Your task to perform on an android device: turn on wifi Image 0: 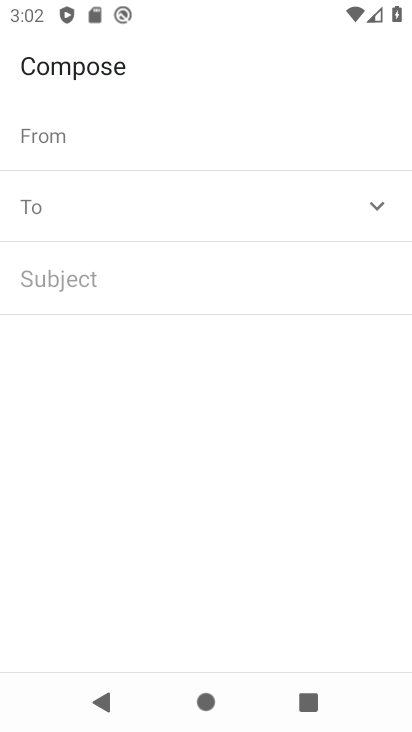
Step 0: drag from (211, 448) to (216, 122)
Your task to perform on an android device: turn on wifi Image 1: 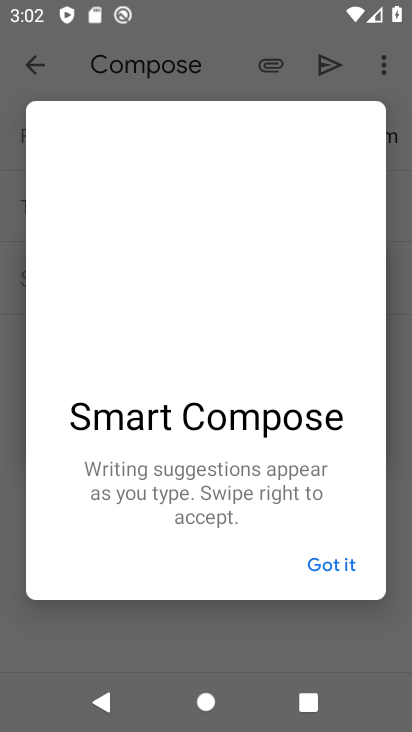
Step 1: press home button
Your task to perform on an android device: turn on wifi Image 2: 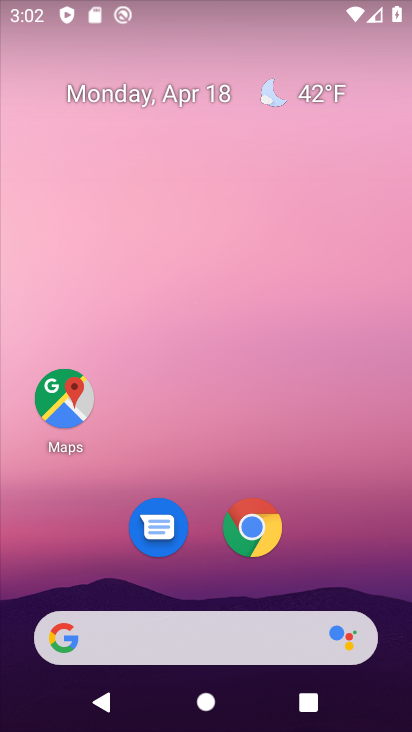
Step 2: drag from (172, 288) to (169, 97)
Your task to perform on an android device: turn on wifi Image 3: 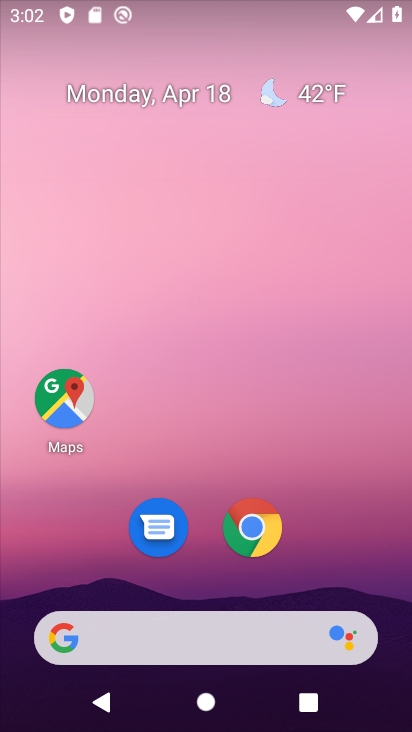
Step 3: drag from (220, 450) to (259, 79)
Your task to perform on an android device: turn on wifi Image 4: 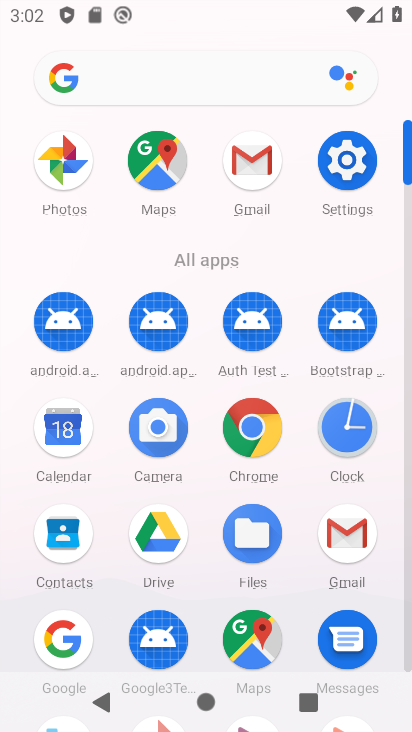
Step 4: click (344, 185)
Your task to perform on an android device: turn on wifi Image 5: 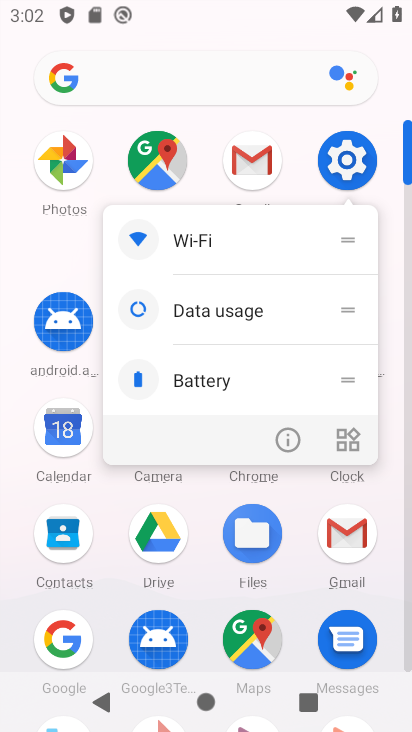
Step 5: click (182, 236)
Your task to perform on an android device: turn on wifi Image 6: 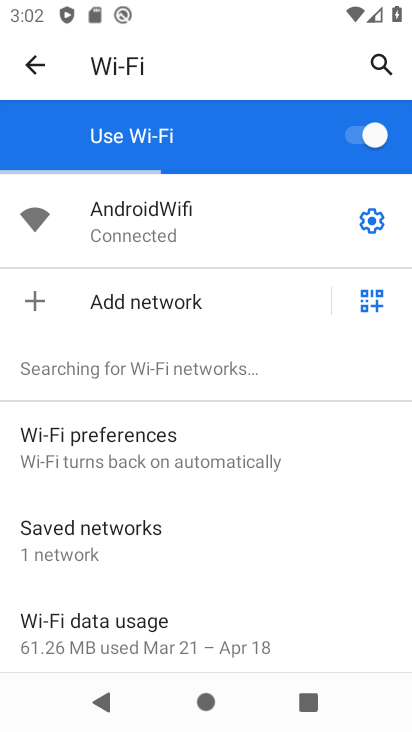
Step 6: task complete